Your task to perform on an android device: change timer sound Image 0: 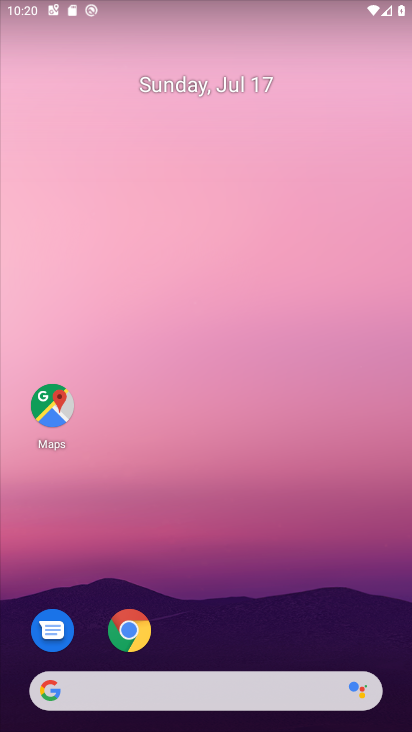
Step 0: drag from (240, 587) to (276, 27)
Your task to perform on an android device: change timer sound Image 1: 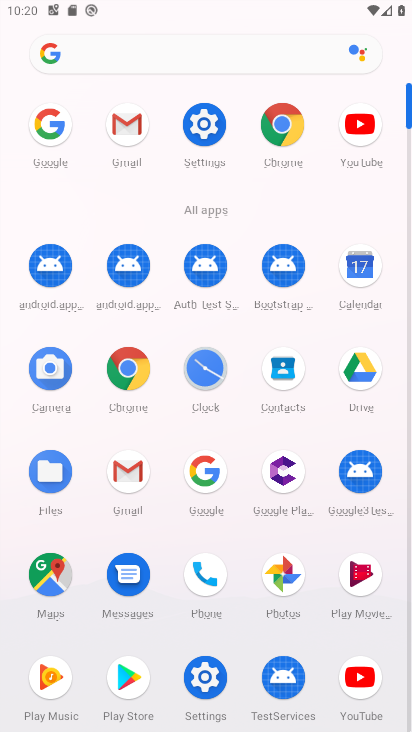
Step 1: click (207, 385)
Your task to perform on an android device: change timer sound Image 2: 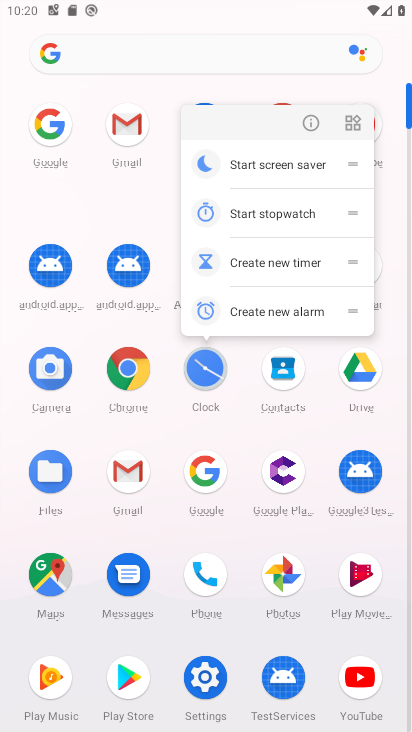
Step 2: click (210, 369)
Your task to perform on an android device: change timer sound Image 3: 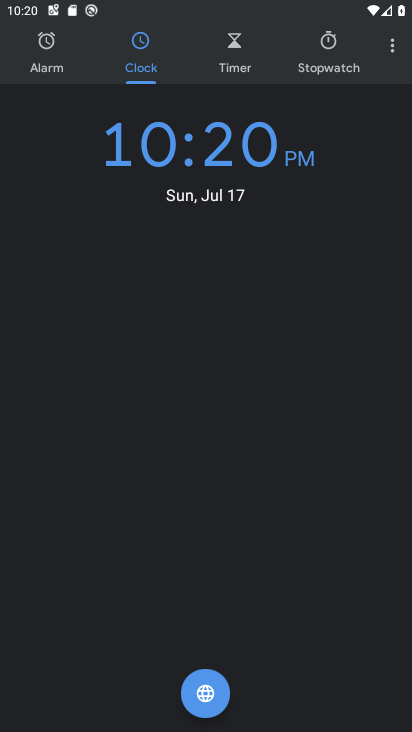
Step 3: click (392, 47)
Your task to perform on an android device: change timer sound Image 4: 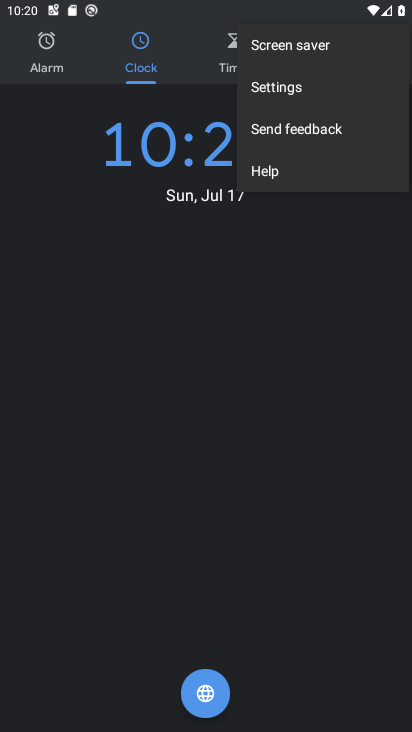
Step 4: click (337, 83)
Your task to perform on an android device: change timer sound Image 5: 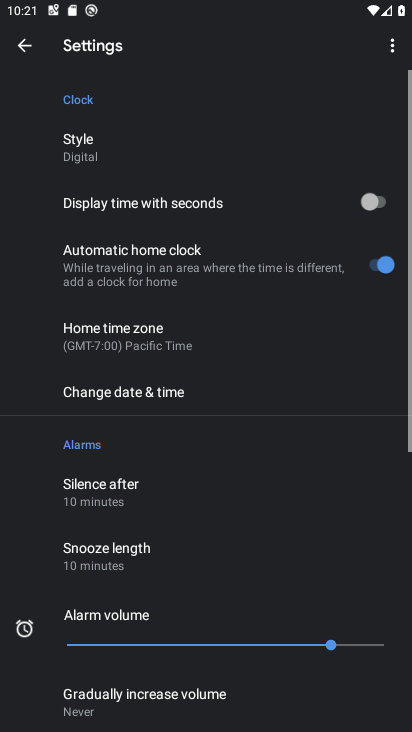
Step 5: drag from (217, 485) to (239, 86)
Your task to perform on an android device: change timer sound Image 6: 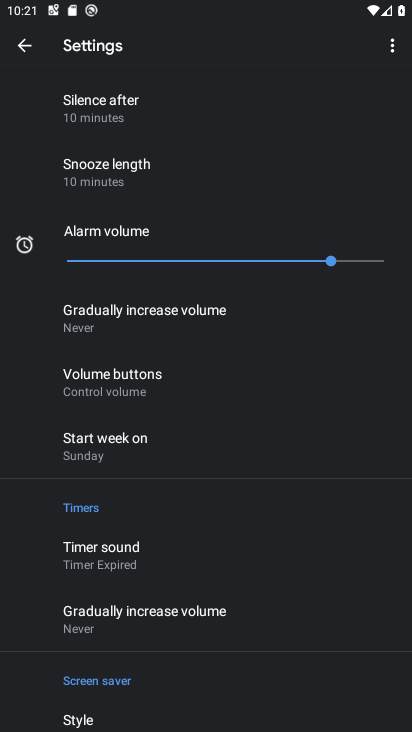
Step 6: click (134, 552)
Your task to perform on an android device: change timer sound Image 7: 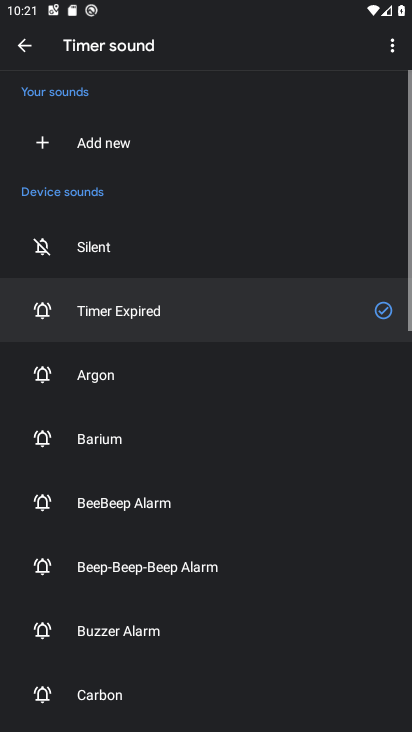
Step 7: click (115, 629)
Your task to perform on an android device: change timer sound Image 8: 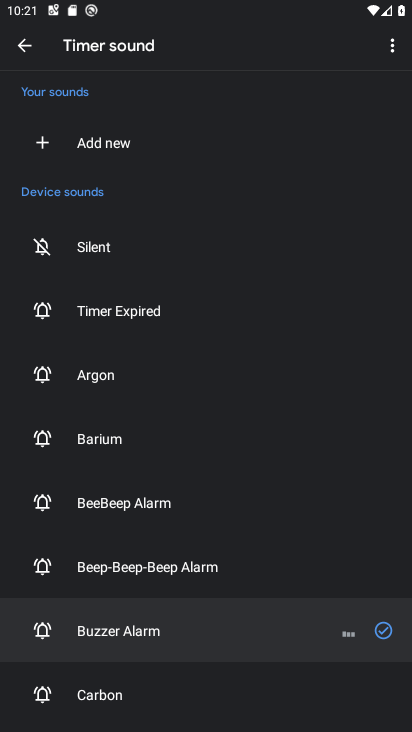
Step 8: task complete